Your task to perform on an android device: When is my next meeting? Image 0: 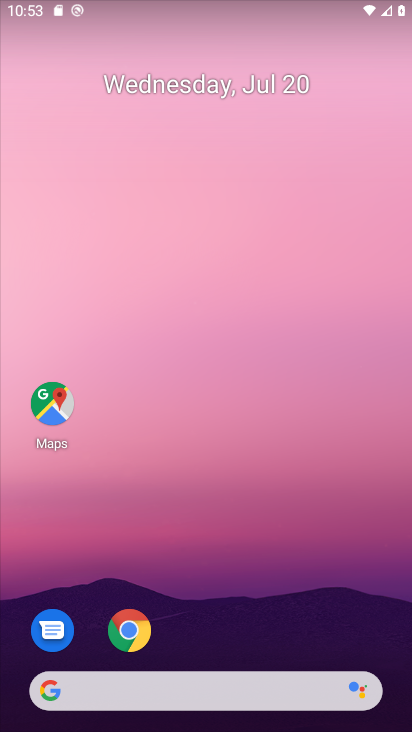
Step 0: drag from (239, 682) to (178, 54)
Your task to perform on an android device: When is my next meeting? Image 1: 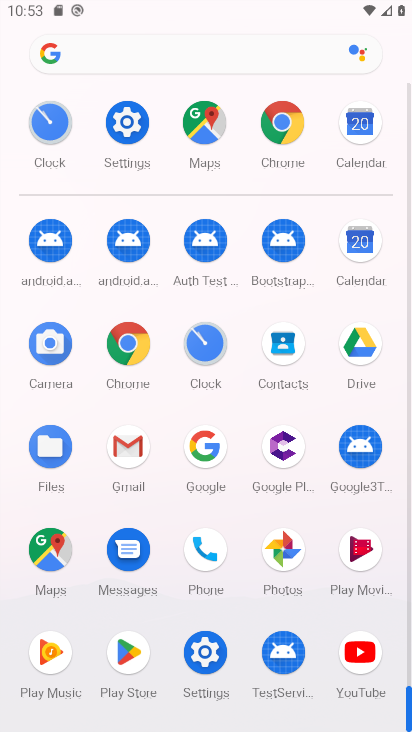
Step 1: click (362, 242)
Your task to perform on an android device: When is my next meeting? Image 2: 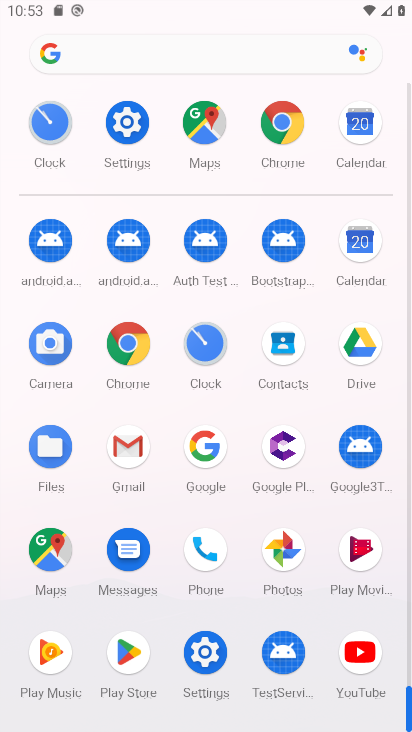
Step 2: click (362, 242)
Your task to perform on an android device: When is my next meeting? Image 3: 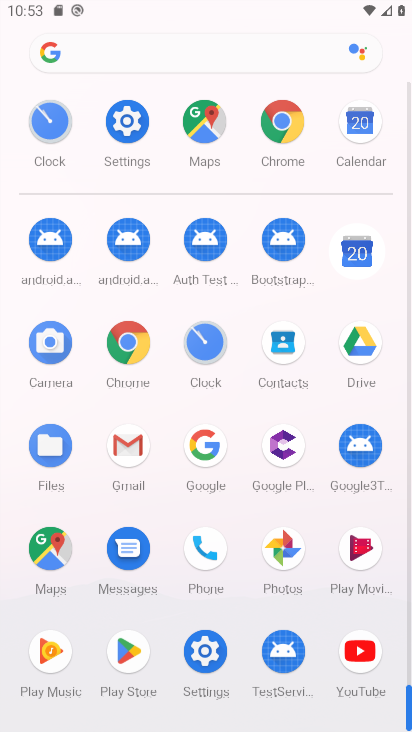
Step 3: click (363, 242)
Your task to perform on an android device: When is my next meeting? Image 4: 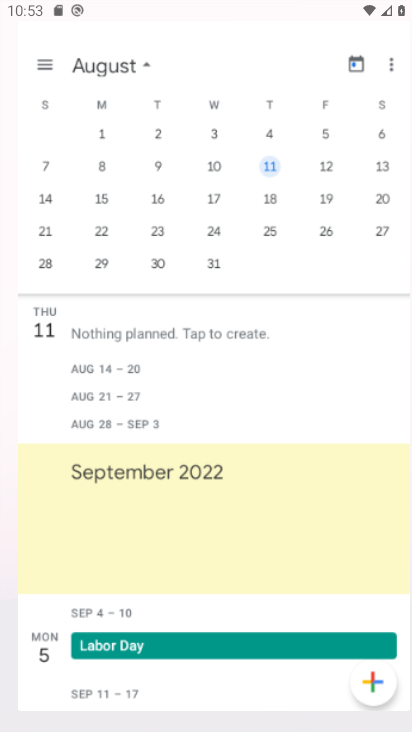
Step 4: click (364, 241)
Your task to perform on an android device: When is my next meeting? Image 5: 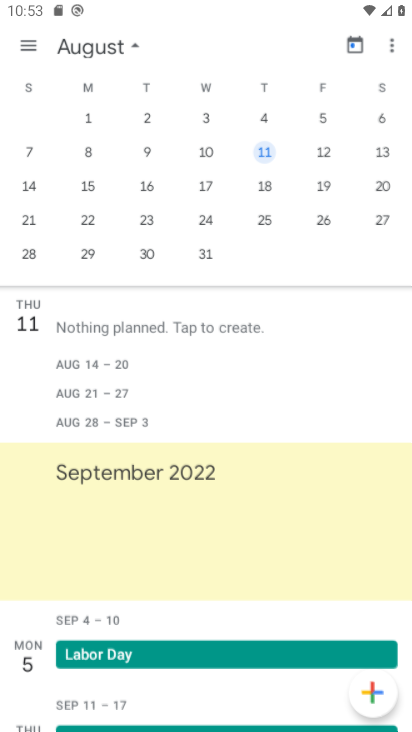
Step 5: click (364, 241)
Your task to perform on an android device: When is my next meeting? Image 6: 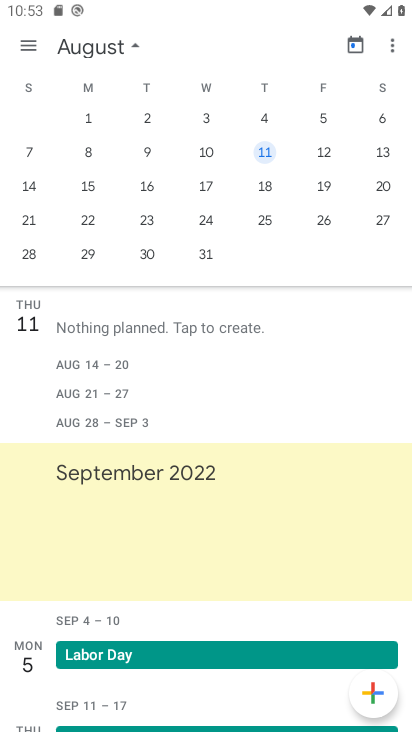
Step 6: drag from (146, 474) to (143, 125)
Your task to perform on an android device: When is my next meeting? Image 7: 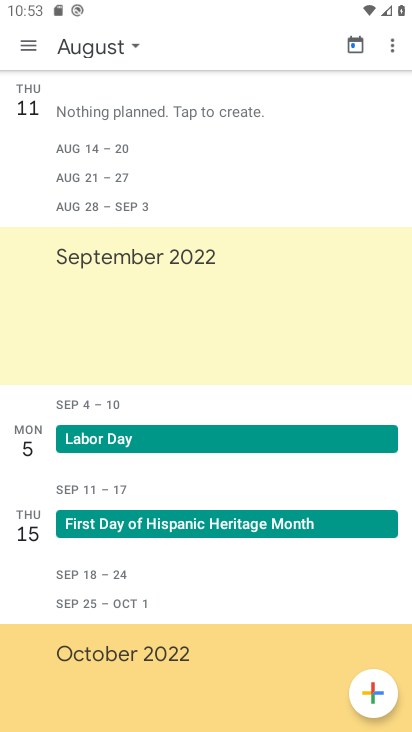
Step 7: drag from (65, 173) to (370, 237)
Your task to perform on an android device: When is my next meeting? Image 8: 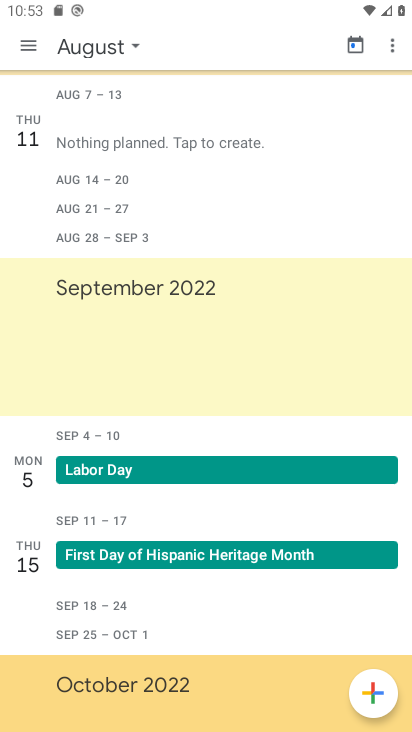
Step 8: drag from (137, 175) to (188, 622)
Your task to perform on an android device: When is my next meeting? Image 9: 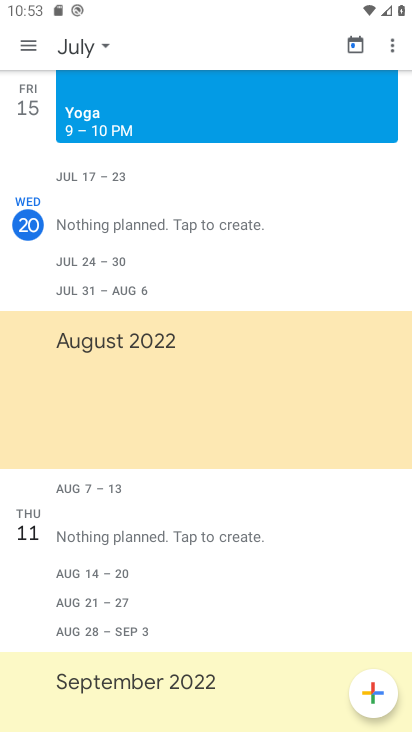
Step 9: drag from (127, 173) to (154, 473)
Your task to perform on an android device: When is my next meeting? Image 10: 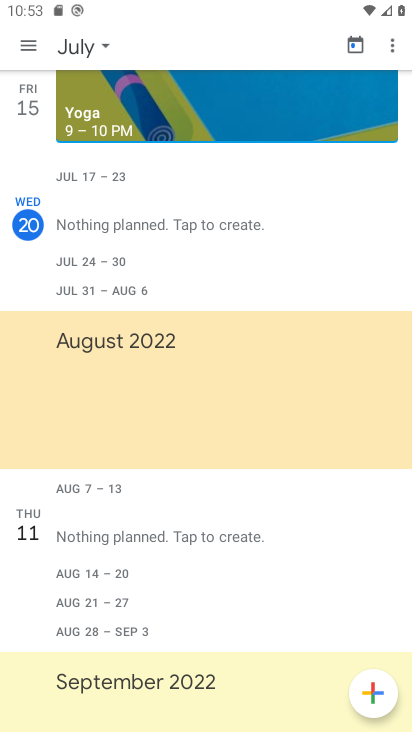
Step 10: drag from (186, 441) to (223, 593)
Your task to perform on an android device: When is my next meeting? Image 11: 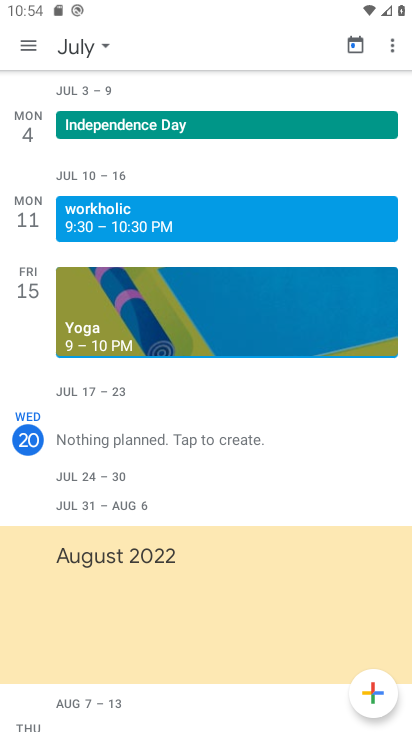
Step 11: click (106, 49)
Your task to perform on an android device: When is my next meeting? Image 12: 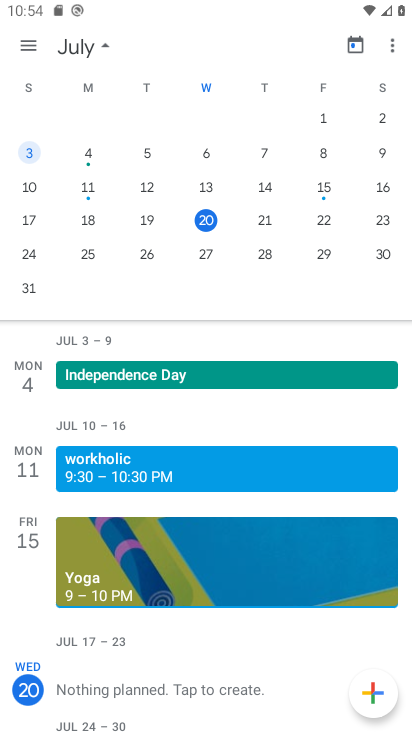
Step 12: task complete